Your task to perform on an android device: delete browsing data in the chrome app Image 0: 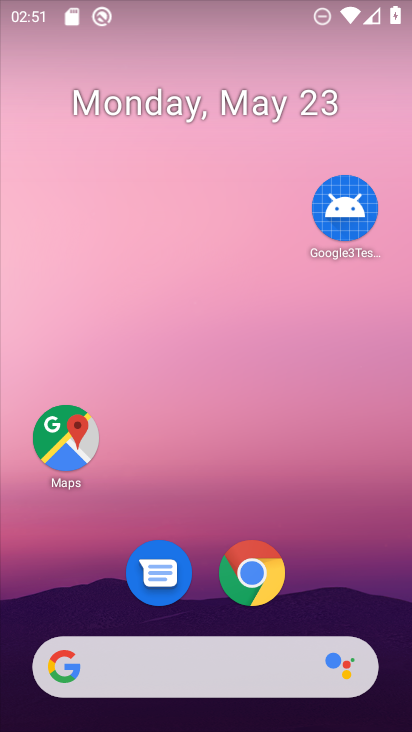
Step 0: click (248, 575)
Your task to perform on an android device: delete browsing data in the chrome app Image 1: 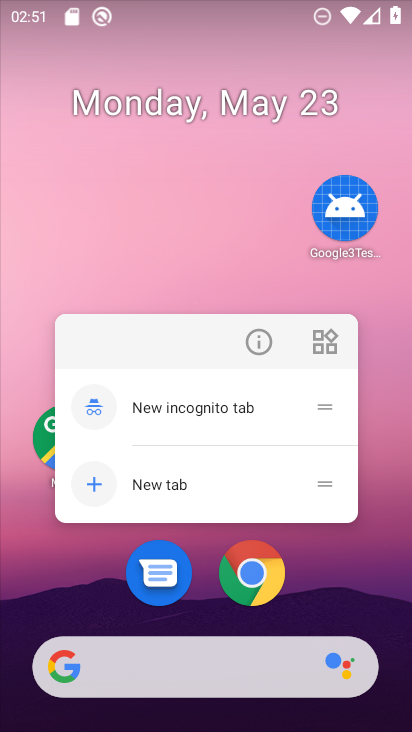
Step 1: click (245, 575)
Your task to perform on an android device: delete browsing data in the chrome app Image 2: 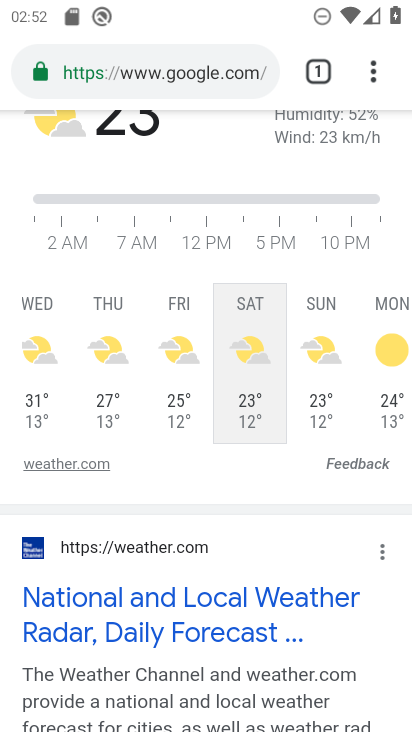
Step 2: drag from (373, 74) to (124, 162)
Your task to perform on an android device: delete browsing data in the chrome app Image 3: 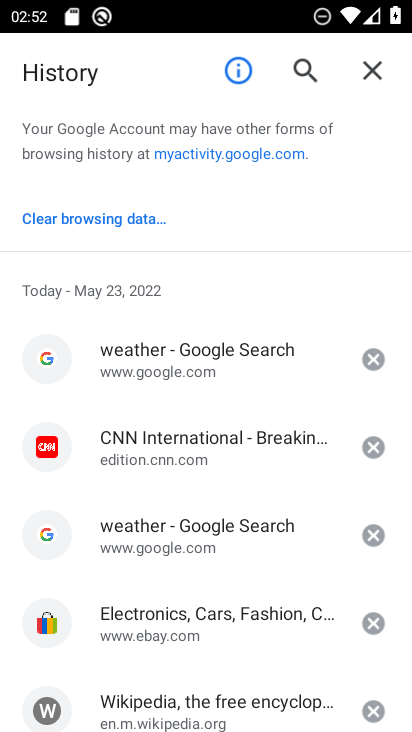
Step 3: click (92, 216)
Your task to perform on an android device: delete browsing data in the chrome app Image 4: 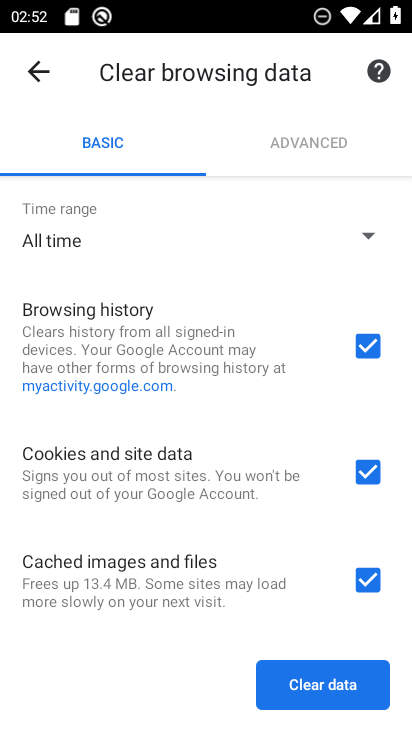
Step 4: click (314, 691)
Your task to perform on an android device: delete browsing data in the chrome app Image 5: 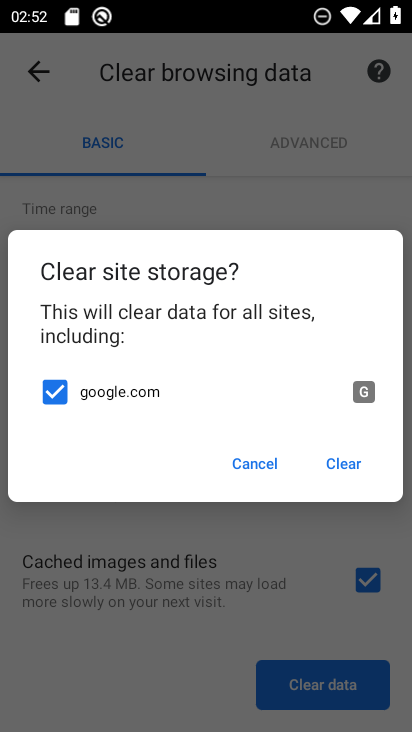
Step 5: click (333, 466)
Your task to perform on an android device: delete browsing data in the chrome app Image 6: 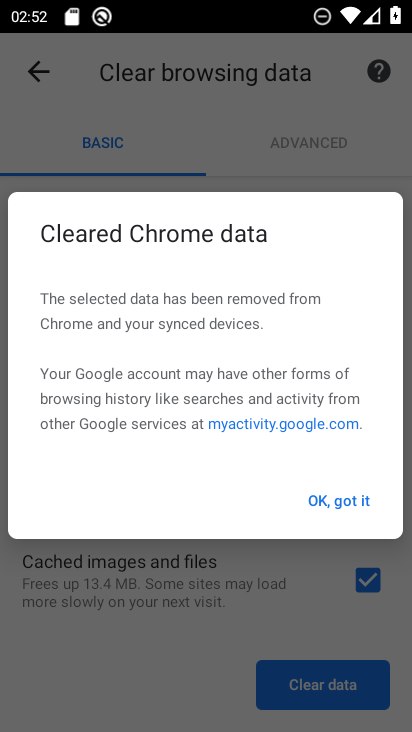
Step 6: click (324, 502)
Your task to perform on an android device: delete browsing data in the chrome app Image 7: 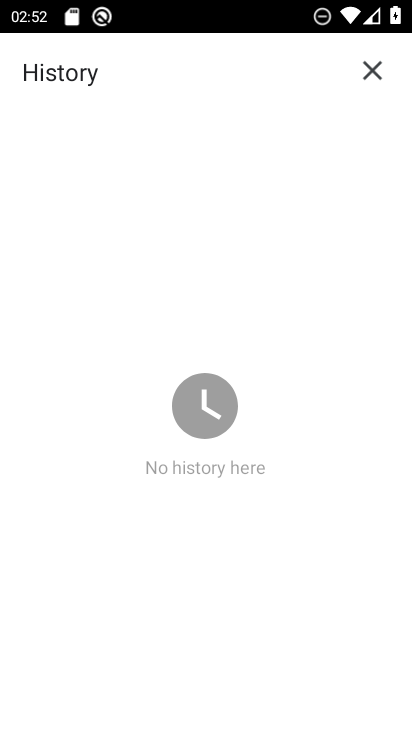
Step 7: task complete